Your task to perform on an android device: toggle wifi Image 0: 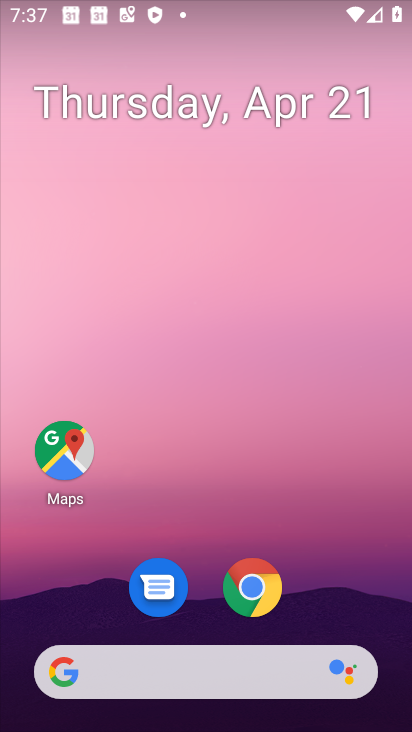
Step 0: drag from (361, 564) to (363, 142)
Your task to perform on an android device: toggle wifi Image 1: 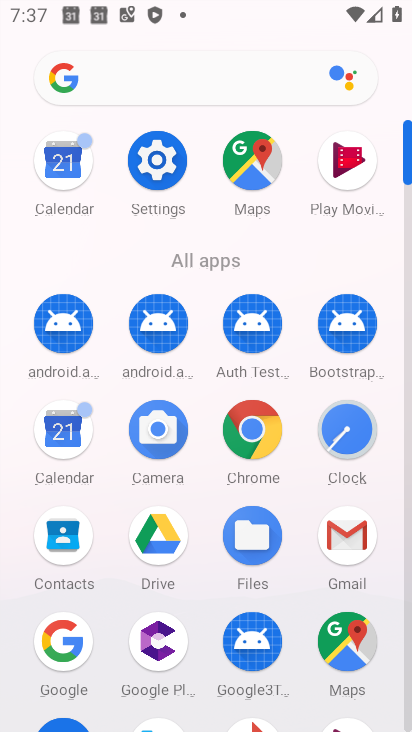
Step 1: click (170, 161)
Your task to perform on an android device: toggle wifi Image 2: 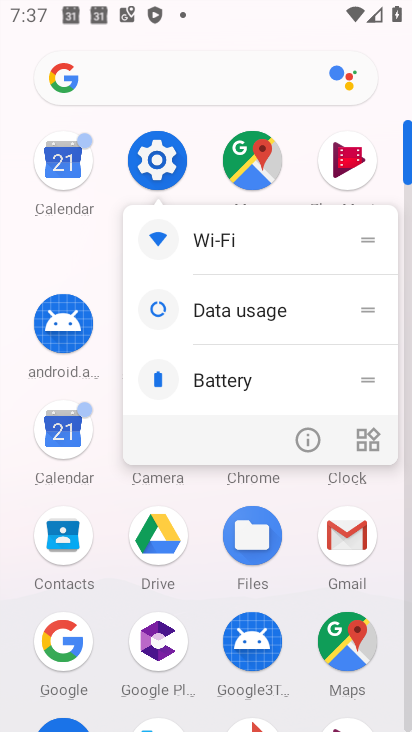
Step 2: click (165, 152)
Your task to perform on an android device: toggle wifi Image 3: 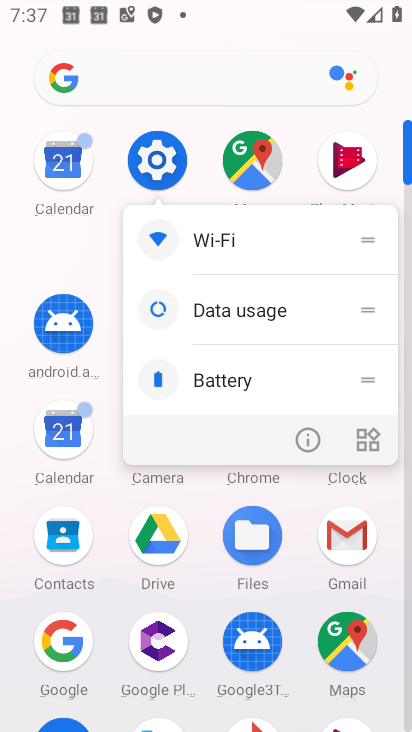
Step 3: click (165, 152)
Your task to perform on an android device: toggle wifi Image 4: 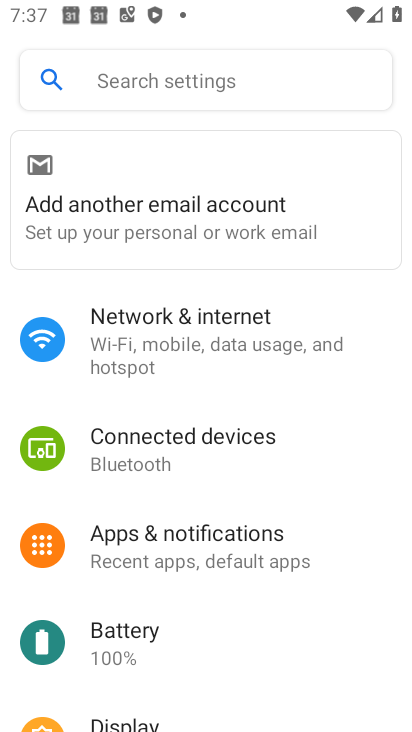
Step 4: click (150, 343)
Your task to perform on an android device: toggle wifi Image 5: 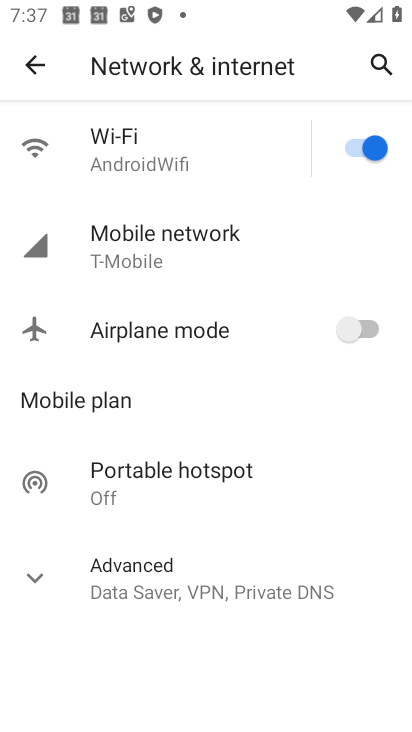
Step 5: click (346, 144)
Your task to perform on an android device: toggle wifi Image 6: 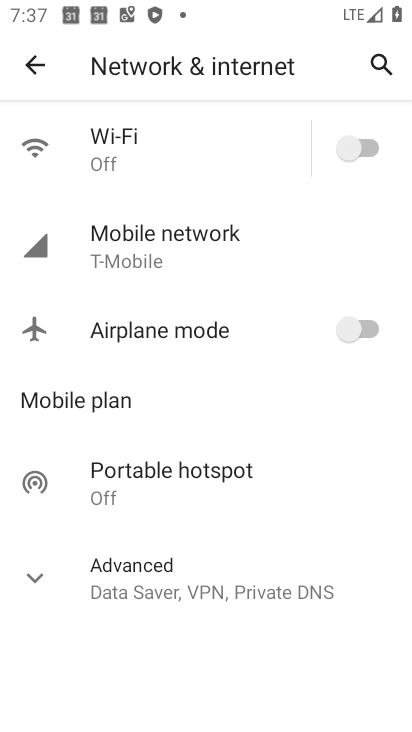
Step 6: task complete